Your task to perform on an android device: Go to internet settings Image 0: 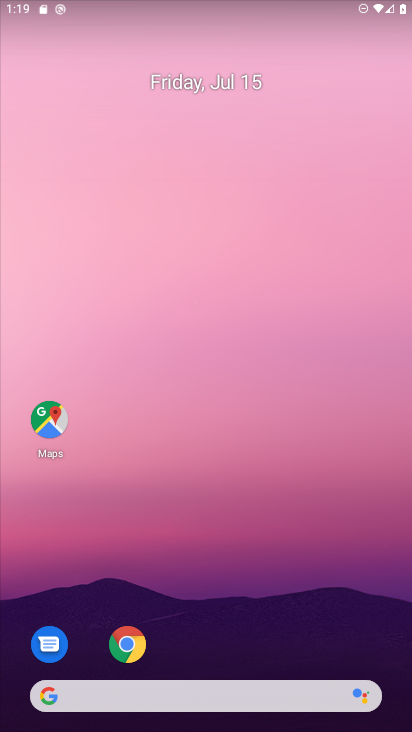
Step 0: drag from (398, 672) to (256, 98)
Your task to perform on an android device: Go to internet settings Image 1: 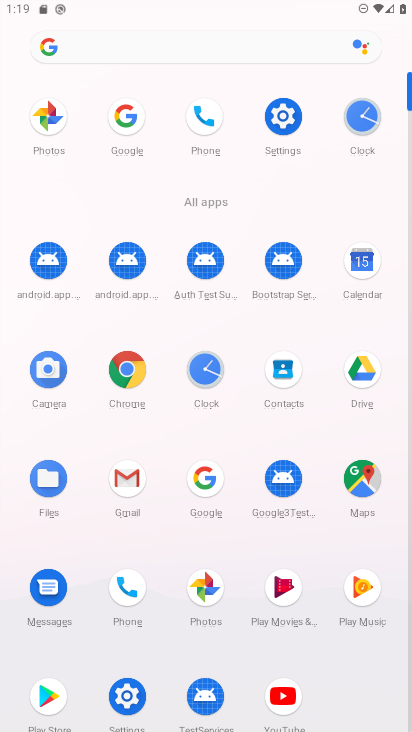
Step 1: click (282, 118)
Your task to perform on an android device: Go to internet settings Image 2: 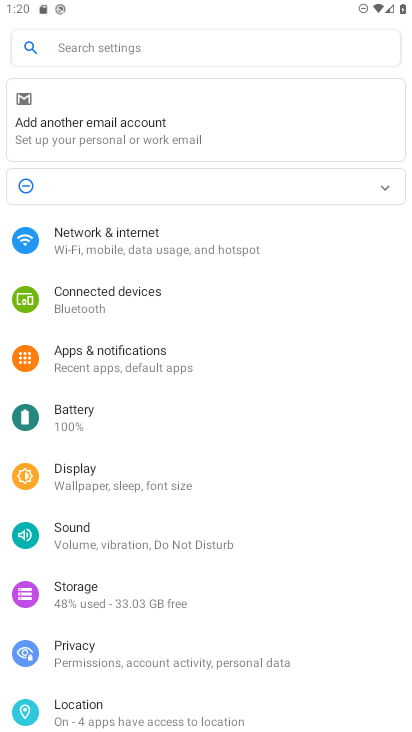
Step 2: click (90, 232)
Your task to perform on an android device: Go to internet settings Image 3: 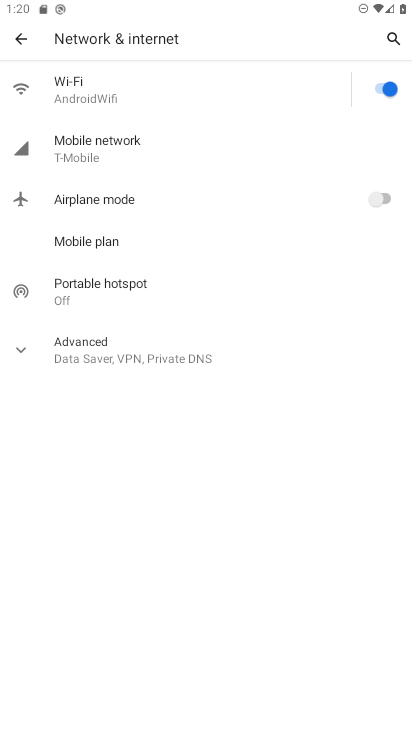
Step 3: click (23, 344)
Your task to perform on an android device: Go to internet settings Image 4: 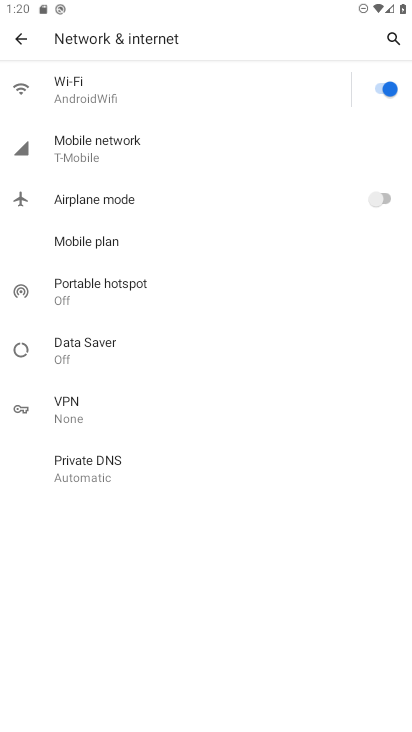
Step 4: task complete